Your task to perform on an android device: turn on the 12-hour format for clock Image 0: 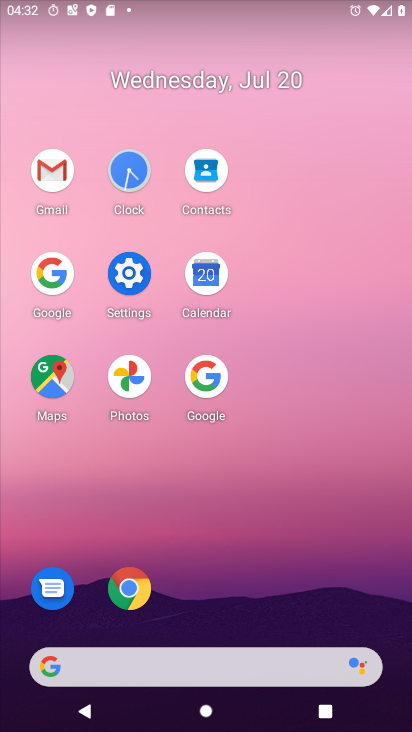
Step 0: click (126, 170)
Your task to perform on an android device: turn on the 12-hour format for clock Image 1: 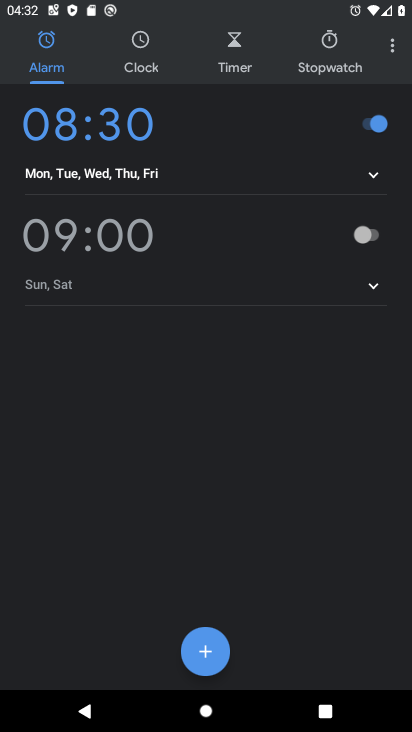
Step 1: click (386, 45)
Your task to perform on an android device: turn on the 12-hour format for clock Image 2: 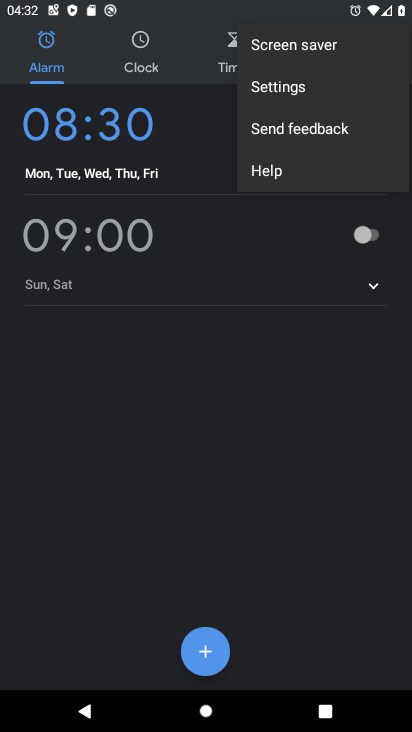
Step 2: click (264, 86)
Your task to perform on an android device: turn on the 12-hour format for clock Image 3: 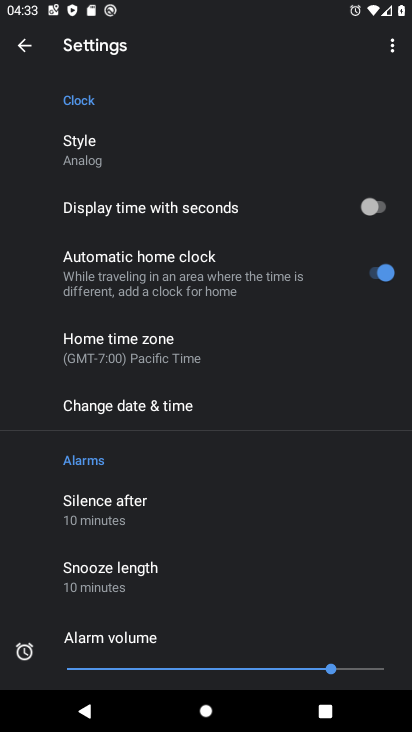
Step 3: drag from (124, 405) to (90, 405)
Your task to perform on an android device: turn on the 12-hour format for clock Image 4: 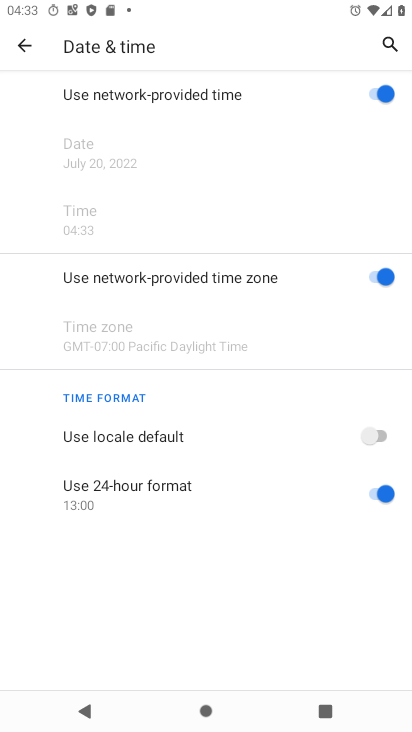
Step 4: click (388, 487)
Your task to perform on an android device: turn on the 12-hour format for clock Image 5: 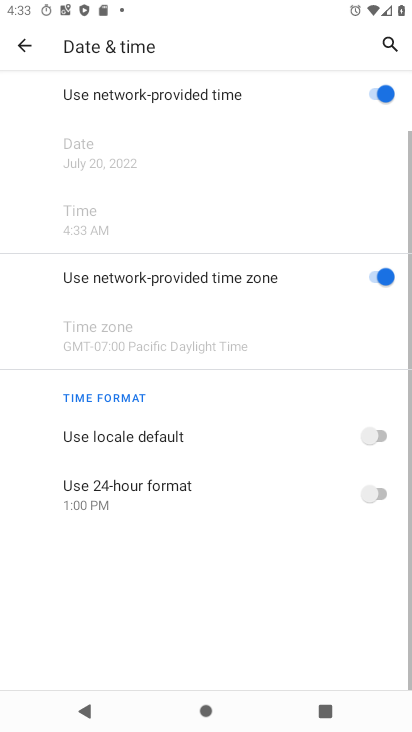
Step 5: click (364, 440)
Your task to perform on an android device: turn on the 12-hour format for clock Image 6: 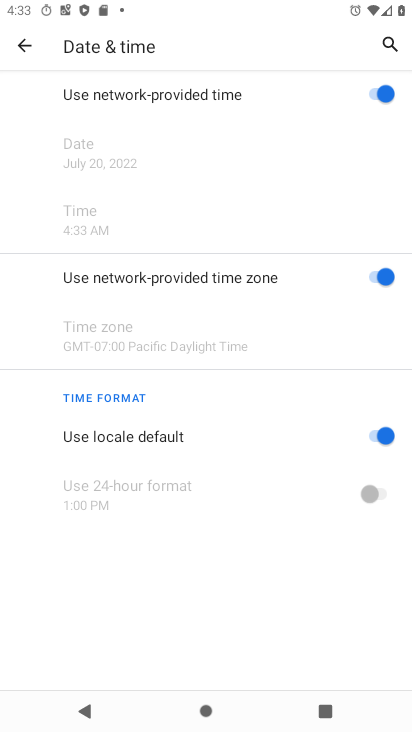
Step 6: task complete